Your task to perform on an android device: add a contact Image 0: 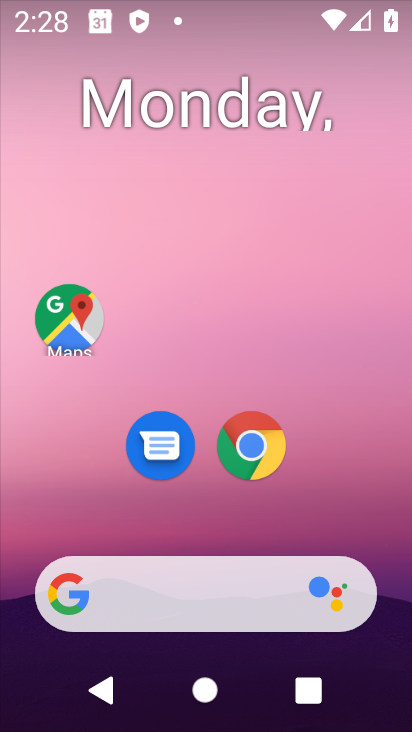
Step 0: drag from (355, 496) to (365, 131)
Your task to perform on an android device: add a contact Image 1: 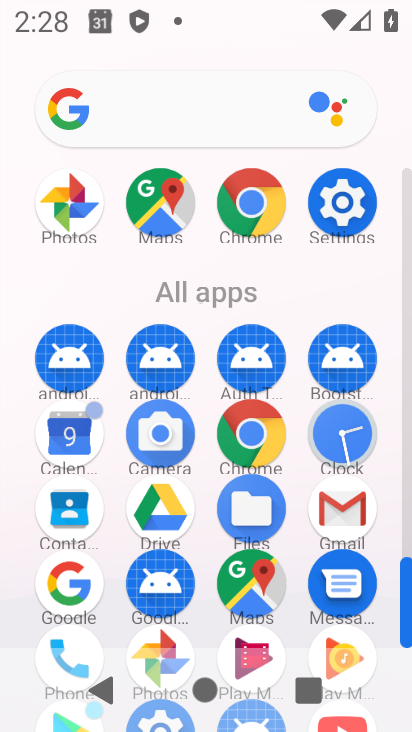
Step 1: drag from (286, 574) to (302, 253)
Your task to perform on an android device: add a contact Image 2: 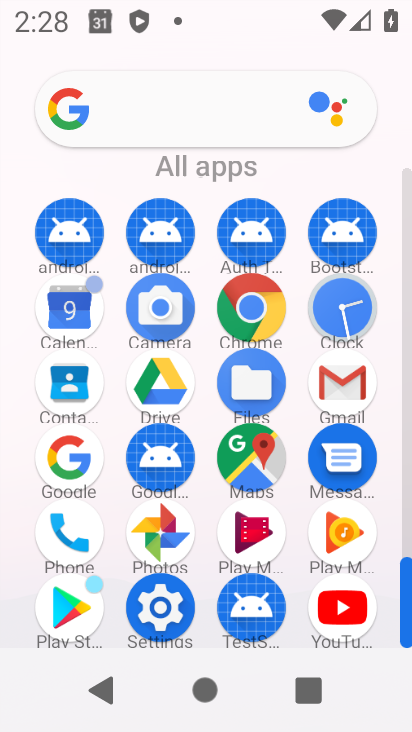
Step 2: drag from (241, 596) to (292, 298)
Your task to perform on an android device: add a contact Image 3: 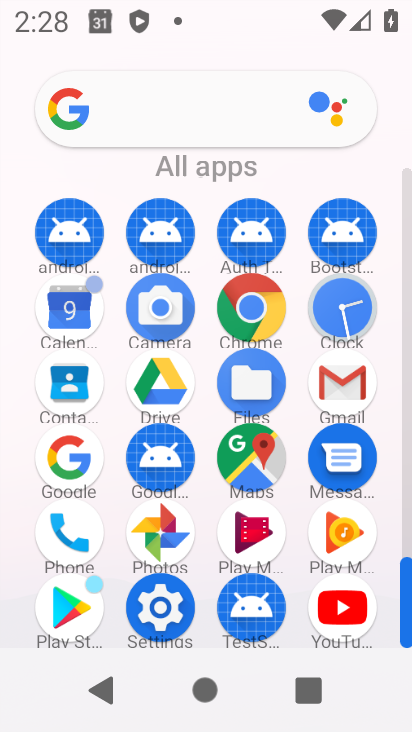
Step 3: click (87, 390)
Your task to perform on an android device: add a contact Image 4: 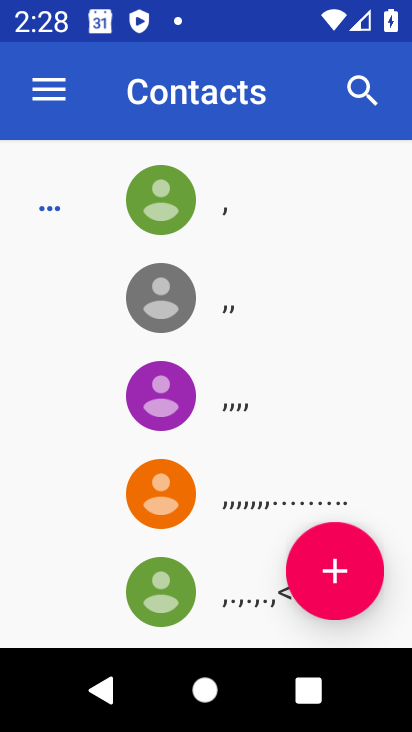
Step 4: click (360, 585)
Your task to perform on an android device: add a contact Image 5: 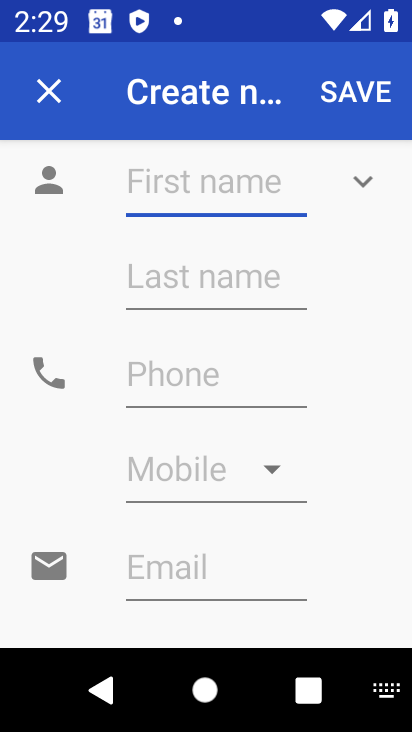
Step 5: type "reetik"
Your task to perform on an android device: add a contact Image 6: 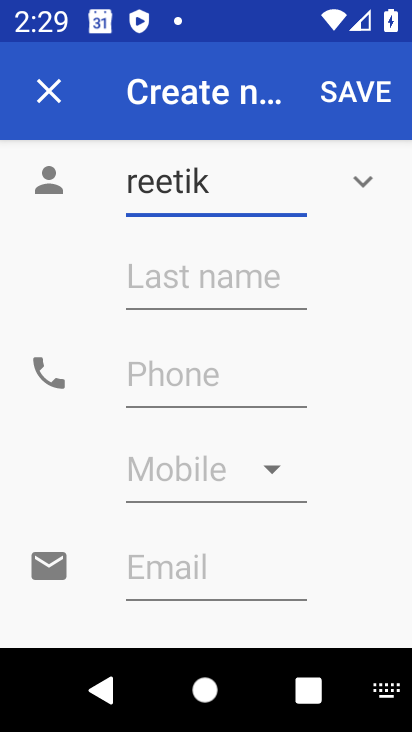
Step 6: click (179, 372)
Your task to perform on an android device: add a contact Image 7: 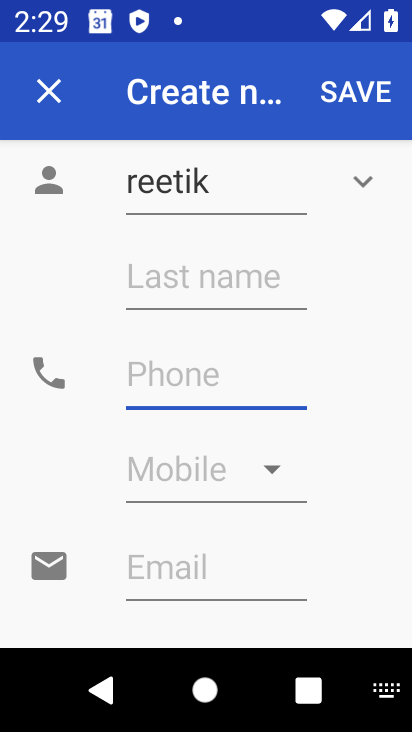
Step 7: type "546345768"
Your task to perform on an android device: add a contact Image 8: 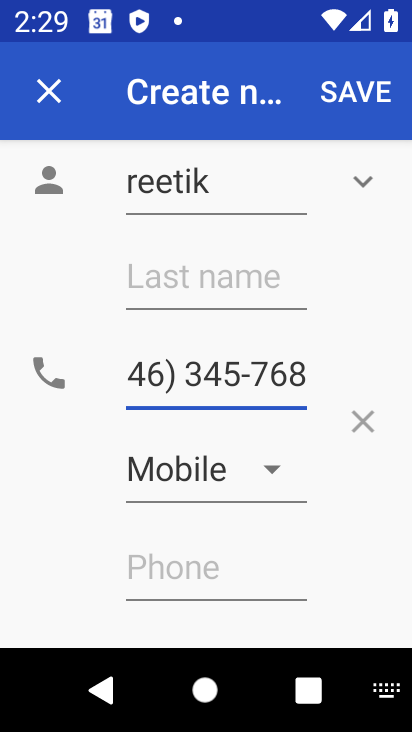
Step 8: click (367, 95)
Your task to perform on an android device: add a contact Image 9: 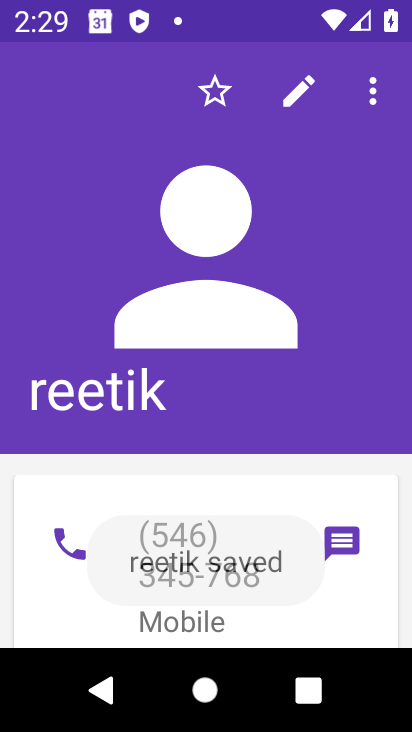
Step 9: task complete